Your task to perform on an android device: turn off smart reply in the gmail app Image 0: 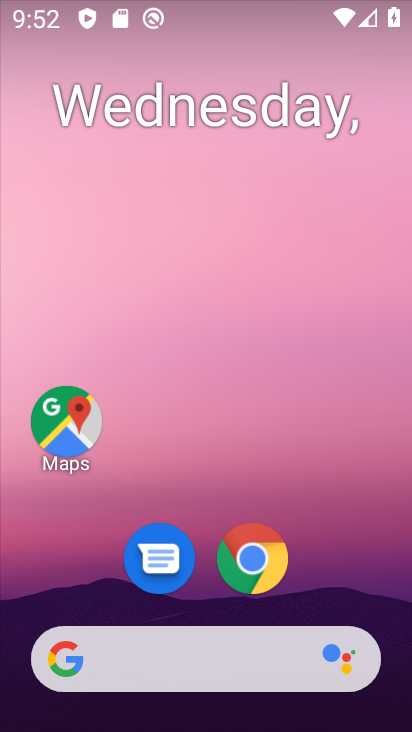
Step 0: drag from (12, 646) to (271, 260)
Your task to perform on an android device: turn off smart reply in the gmail app Image 1: 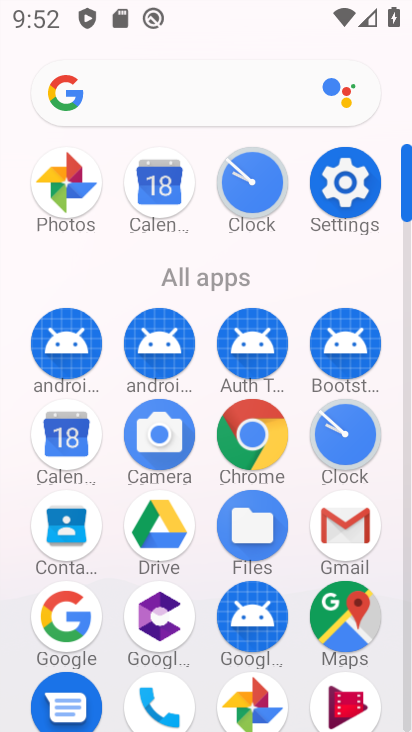
Step 1: click (362, 534)
Your task to perform on an android device: turn off smart reply in the gmail app Image 2: 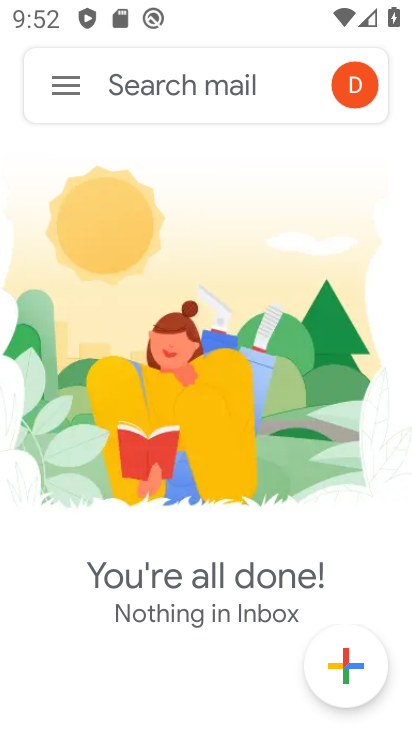
Step 2: click (68, 86)
Your task to perform on an android device: turn off smart reply in the gmail app Image 3: 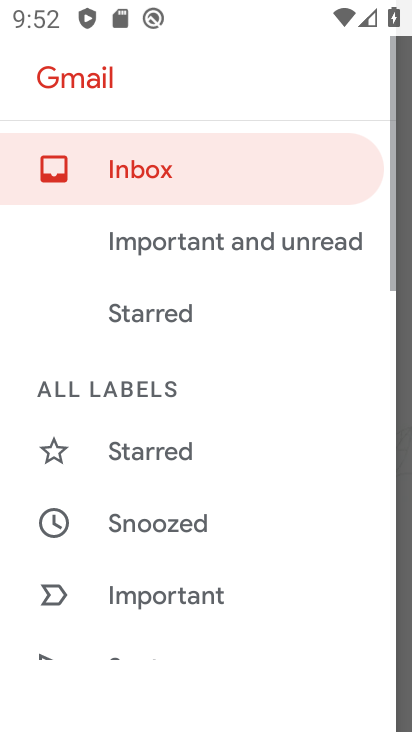
Step 3: drag from (15, 633) to (300, 181)
Your task to perform on an android device: turn off smart reply in the gmail app Image 4: 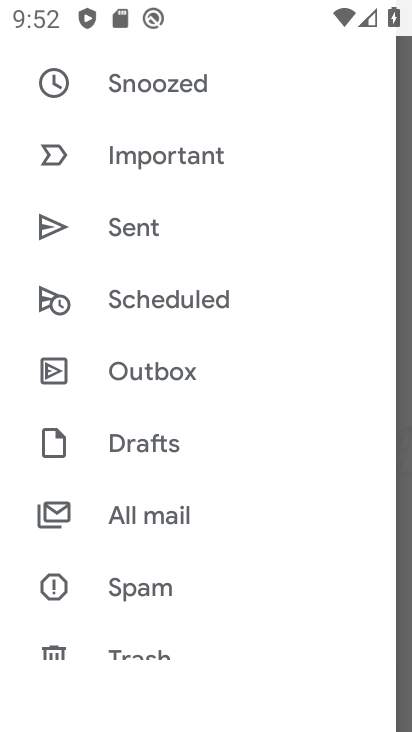
Step 4: drag from (6, 649) to (344, 216)
Your task to perform on an android device: turn off smart reply in the gmail app Image 5: 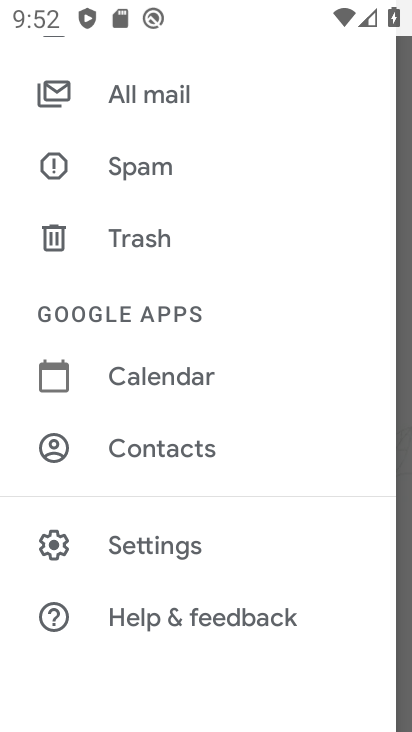
Step 5: click (204, 538)
Your task to perform on an android device: turn off smart reply in the gmail app Image 6: 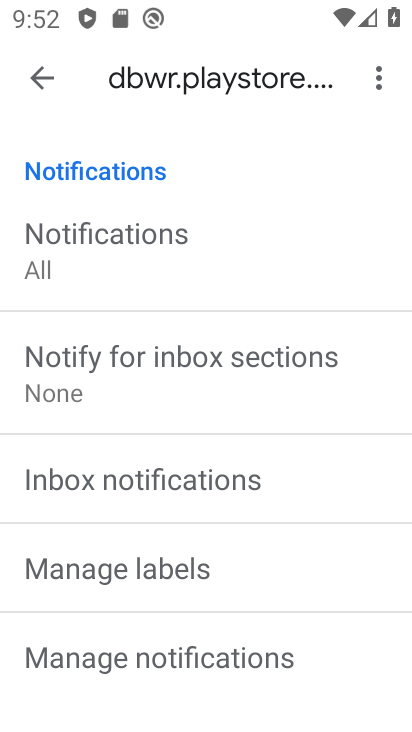
Step 6: drag from (8, 573) to (345, 49)
Your task to perform on an android device: turn off smart reply in the gmail app Image 7: 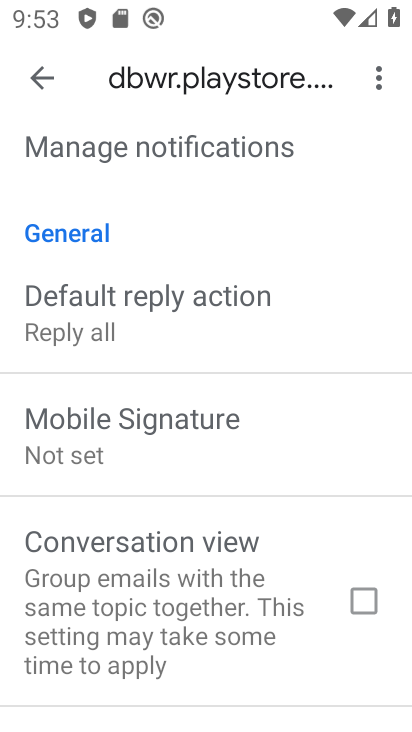
Step 7: drag from (5, 686) to (275, 182)
Your task to perform on an android device: turn off smart reply in the gmail app Image 8: 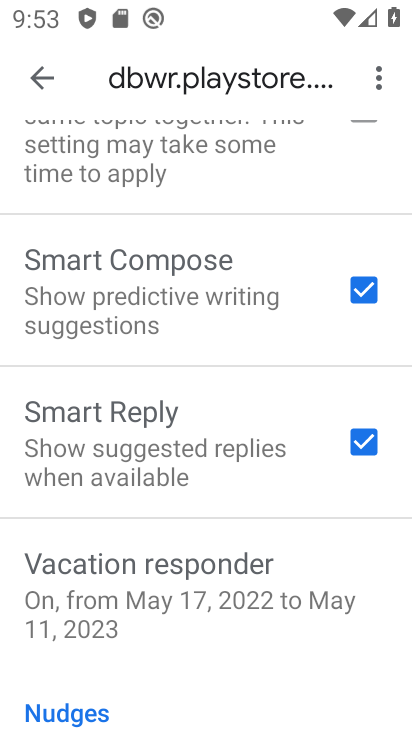
Step 8: click (356, 438)
Your task to perform on an android device: turn off smart reply in the gmail app Image 9: 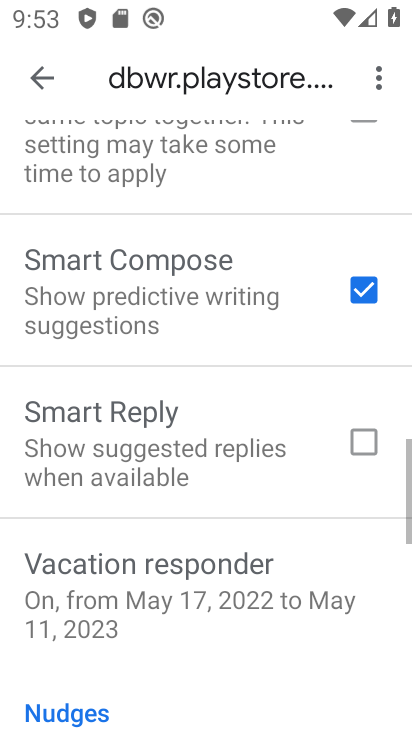
Step 9: task complete